Your task to perform on an android device: change your default location settings in chrome Image 0: 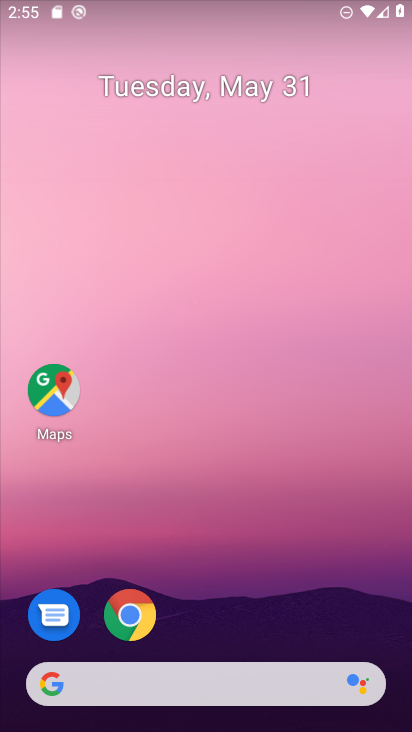
Step 0: drag from (293, 645) to (215, 180)
Your task to perform on an android device: change your default location settings in chrome Image 1: 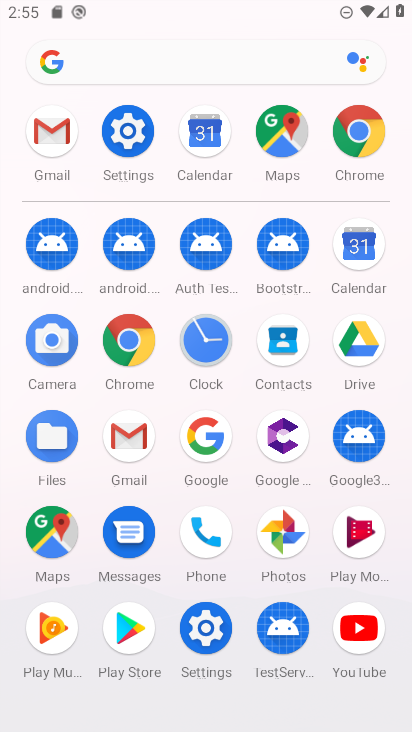
Step 1: click (350, 132)
Your task to perform on an android device: change your default location settings in chrome Image 2: 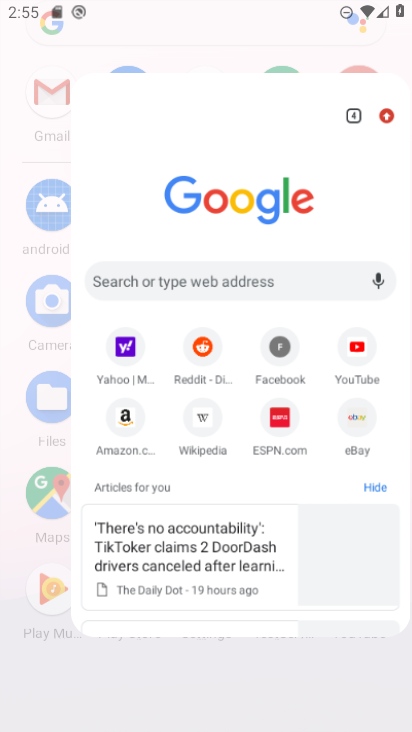
Step 2: click (366, 136)
Your task to perform on an android device: change your default location settings in chrome Image 3: 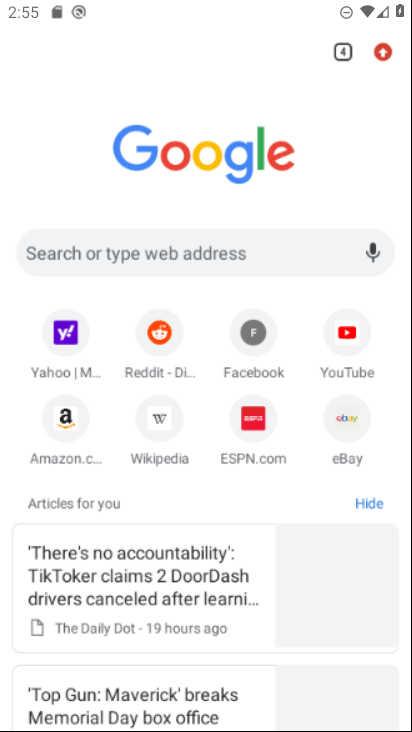
Step 3: click (367, 136)
Your task to perform on an android device: change your default location settings in chrome Image 4: 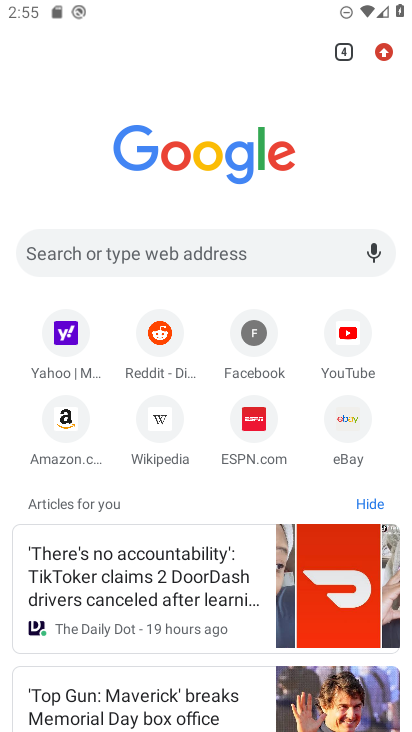
Step 4: click (387, 54)
Your task to perform on an android device: change your default location settings in chrome Image 5: 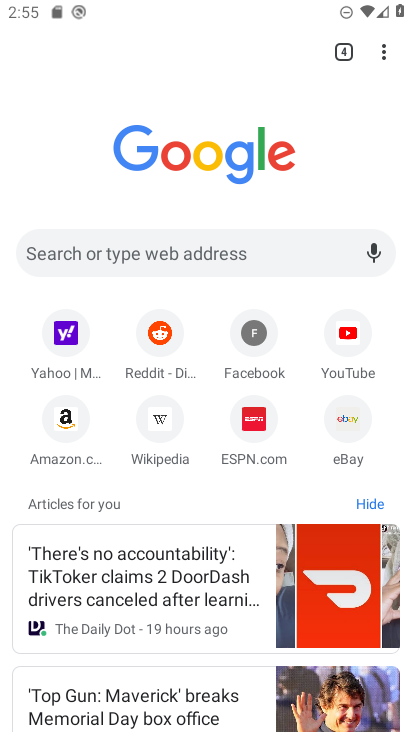
Step 5: drag from (387, 54) to (197, 480)
Your task to perform on an android device: change your default location settings in chrome Image 6: 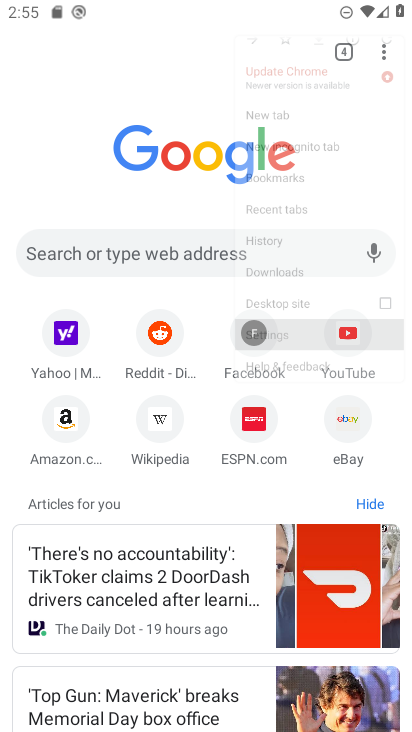
Step 6: click (197, 480)
Your task to perform on an android device: change your default location settings in chrome Image 7: 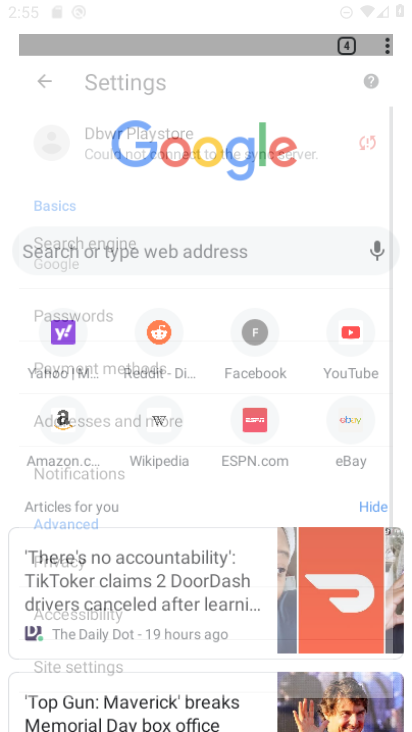
Step 7: click (197, 480)
Your task to perform on an android device: change your default location settings in chrome Image 8: 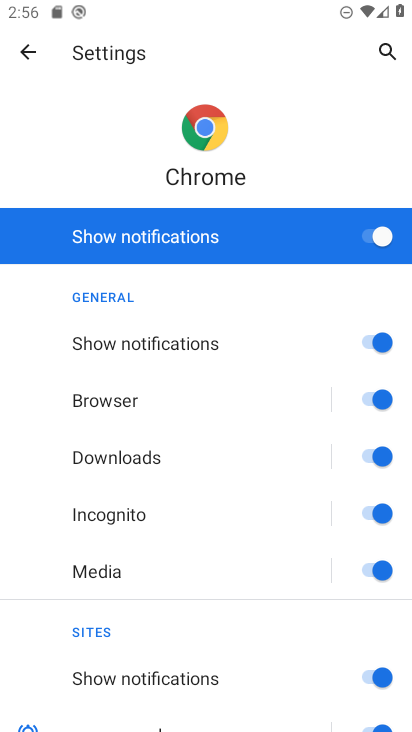
Step 8: click (28, 50)
Your task to perform on an android device: change your default location settings in chrome Image 9: 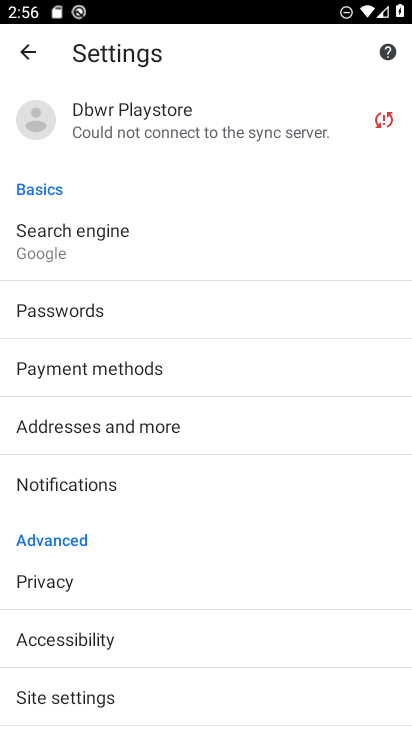
Step 9: drag from (203, 574) to (168, 316)
Your task to perform on an android device: change your default location settings in chrome Image 10: 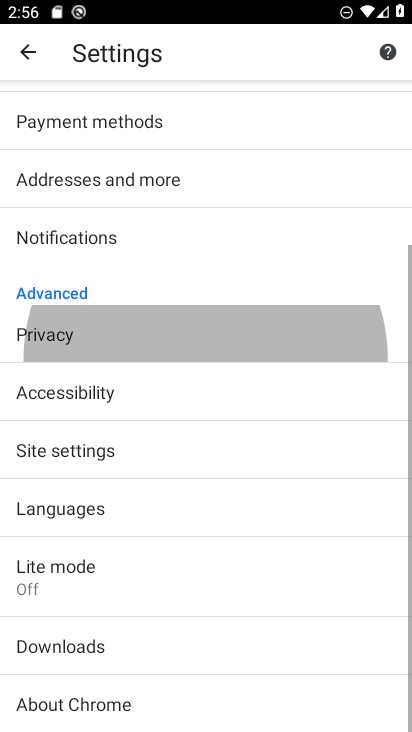
Step 10: drag from (207, 387) to (207, 207)
Your task to perform on an android device: change your default location settings in chrome Image 11: 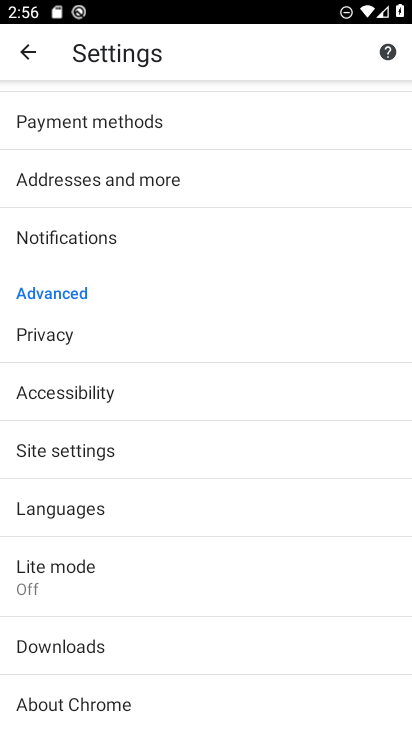
Step 11: click (51, 449)
Your task to perform on an android device: change your default location settings in chrome Image 12: 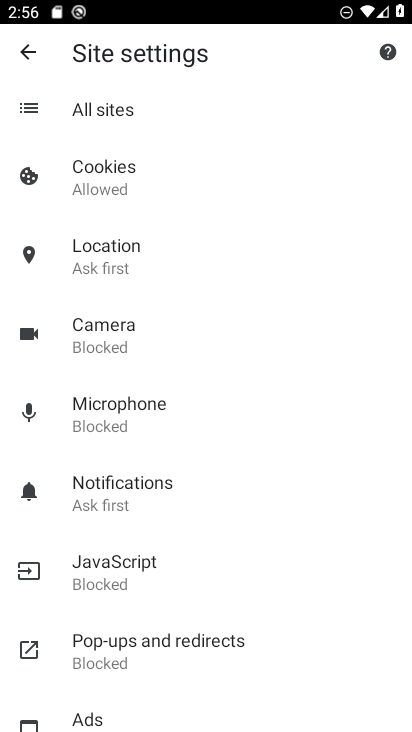
Step 12: click (101, 251)
Your task to perform on an android device: change your default location settings in chrome Image 13: 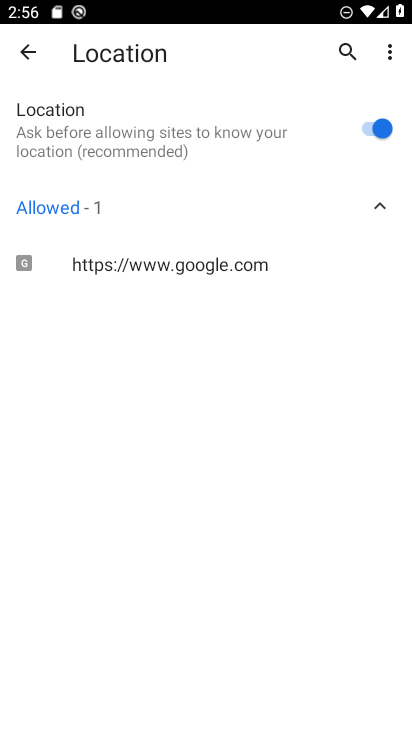
Step 13: click (378, 129)
Your task to perform on an android device: change your default location settings in chrome Image 14: 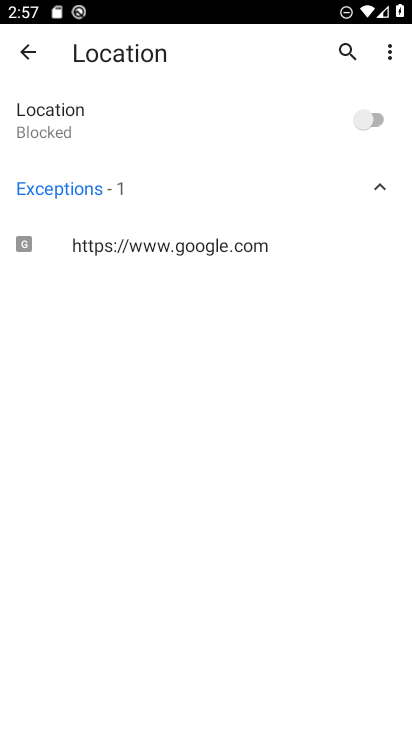
Step 14: task complete